Your task to perform on an android device: change the upload size in google photos Image 0: 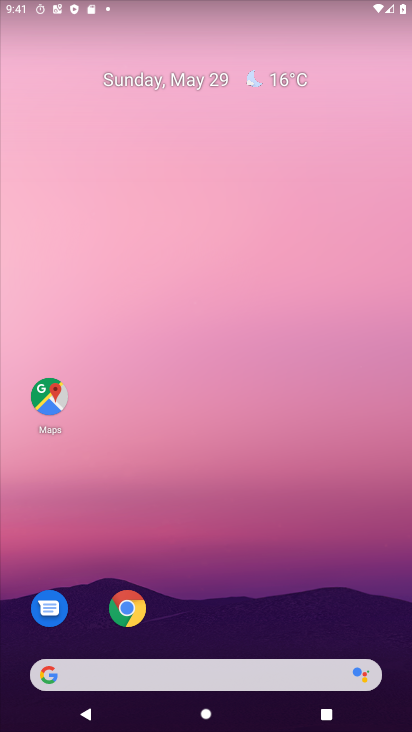
Step 0: drag from (149, 631) to (279, 62)
Your task to perform on an android device: change the upload size in google photos Image 1: 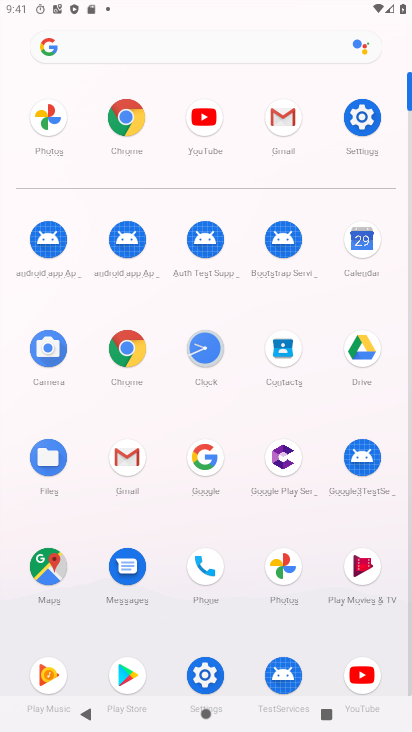
Step 1: click (275, 597)
Your task to perform on an android device: change the upload size in google photos Image 2: 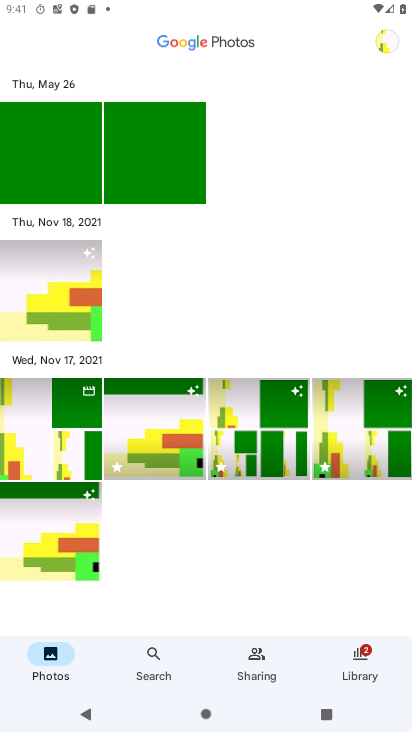
Step 2: click (383, 53)
Your task to perform on an android device: change the upload size in google photos Image 3: 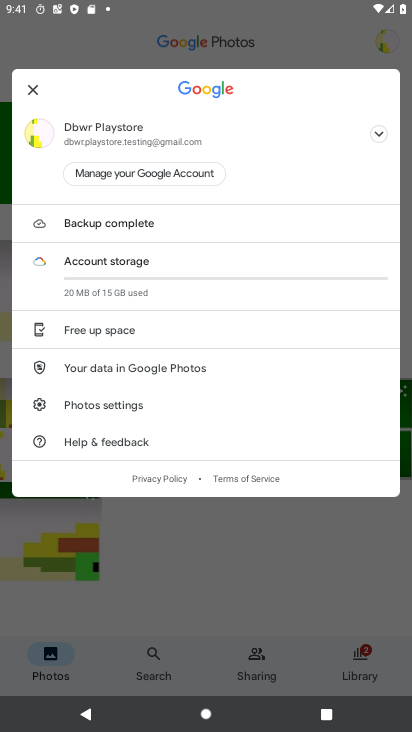
Step 3: click (126, 407)
Your task to perform on an android device: change the upload size in google photos Image 4: 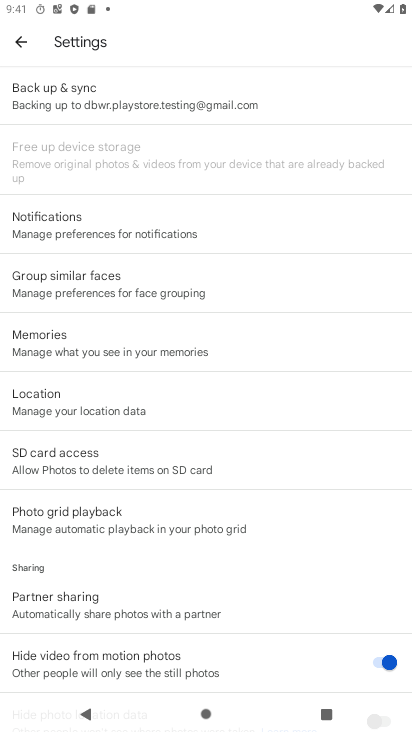
Step 4: click (103, 112)
Your task to perform on an android device: change the upload size in google photos Image 5: 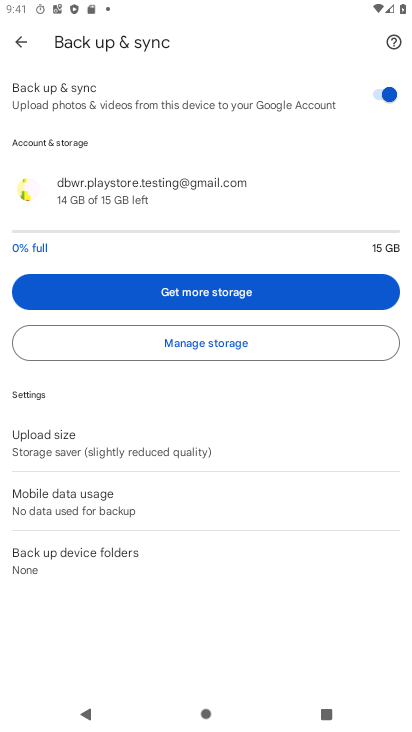
Step 5: click (68, 452)
Your task to perform on an android device: change the upload size in google photos Image 6: 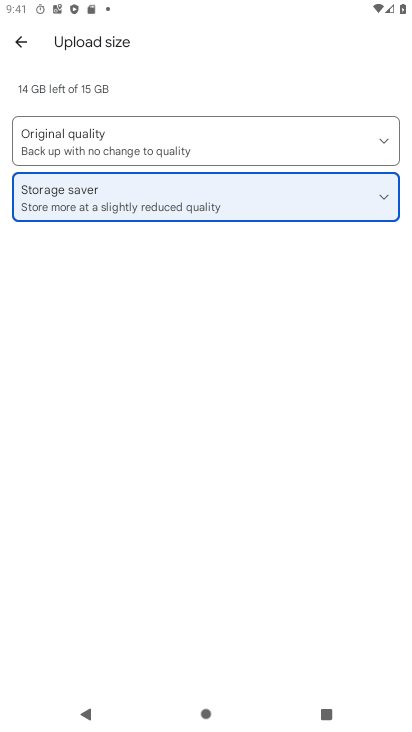
Step 6: click (130, 154)
Your task to perform on an android device: change the upload size in google photos Image 7: 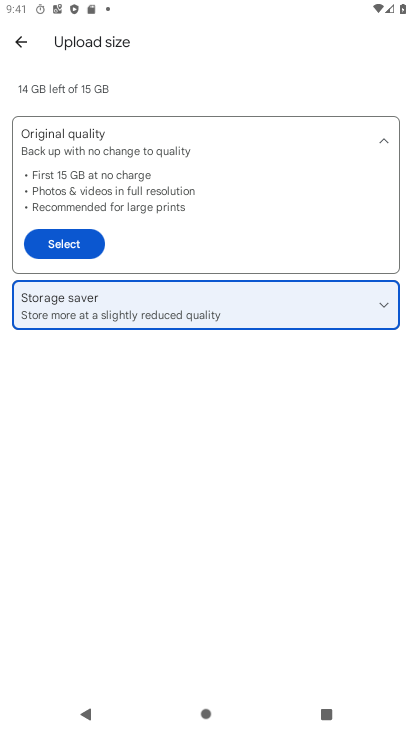
Step 7: click (74, 239)
Your task to perform on an android device: change the upload size in google photos Image 8: 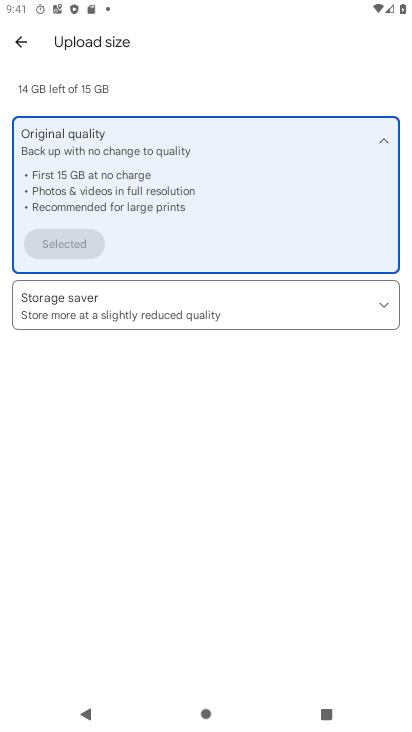
Step 8: task complete